Your task to perform on an android device: Open Reddit.com Image 0: 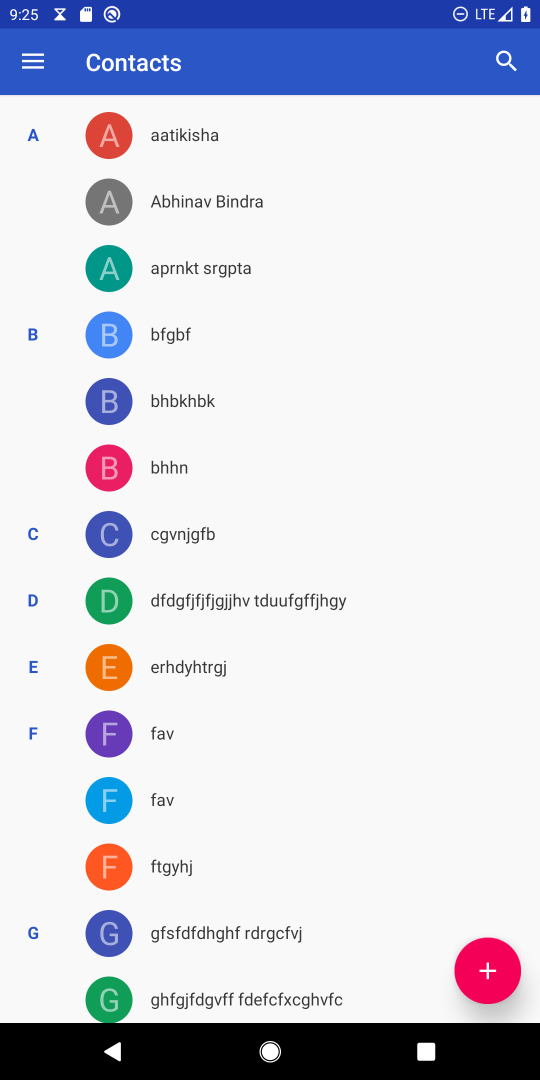
Step 0: press home button
Your task to perform on an android device: Open Reddit.com Image 1: 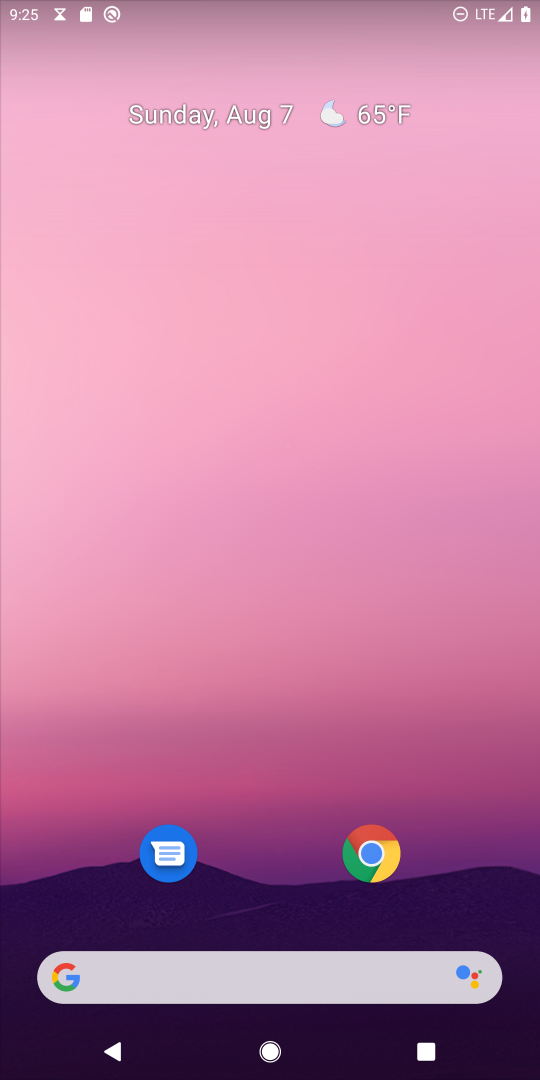
Step 1: drag from (217, 860) to (198, 173)
Your task to perform on an android device: Open Reddit.com Image 2: 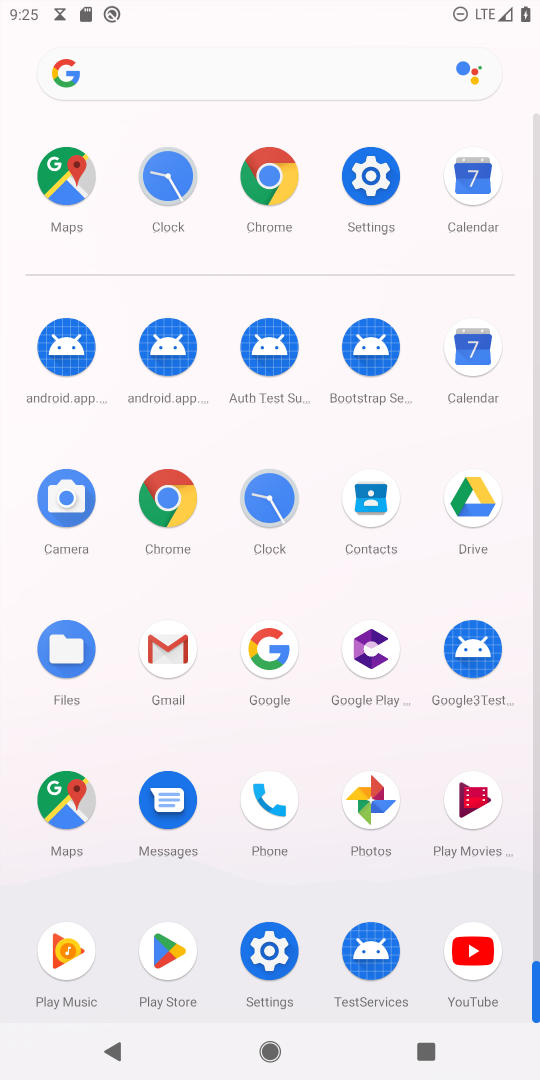
Step 2: click (274, 166)
Your task to perform on an android device: Open Reddit.com Image 3: 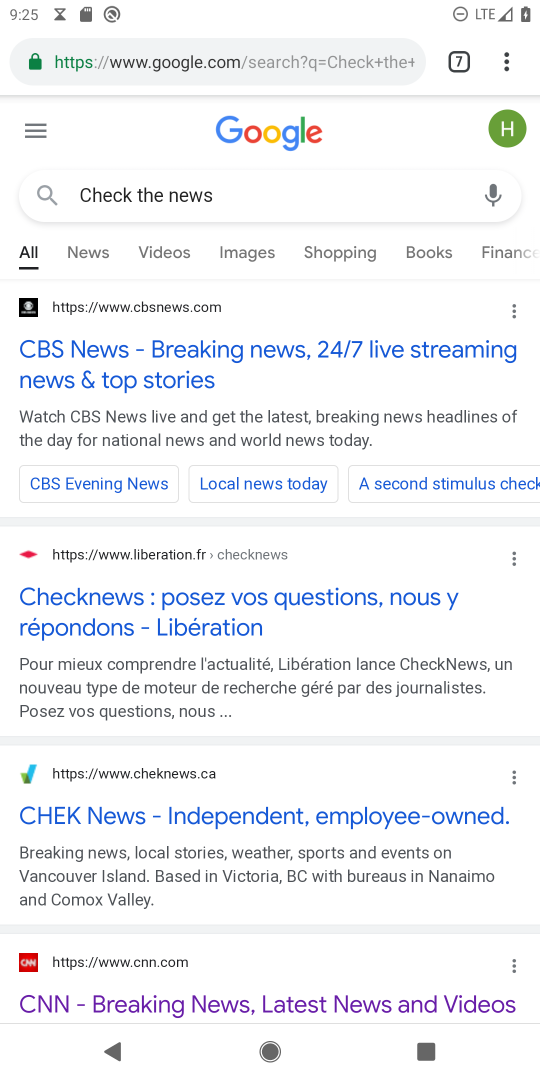
Step 3: click (504, 57)
Your task to perform on an android device: Open Reddit.com Image 4: 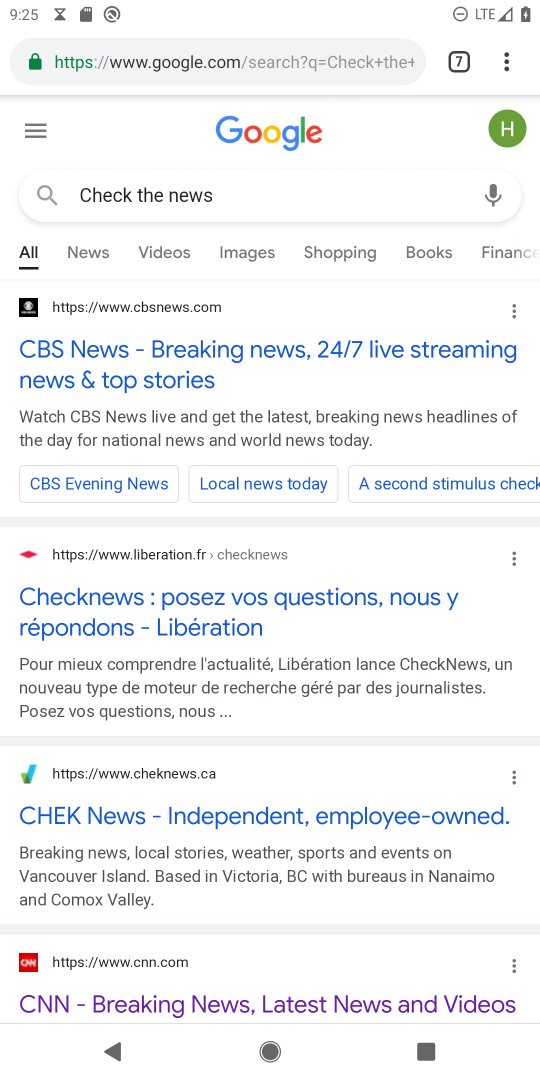
Step 4: click (508, 56)
Your task to perform on an android device: Open Reddit.com Image 5: 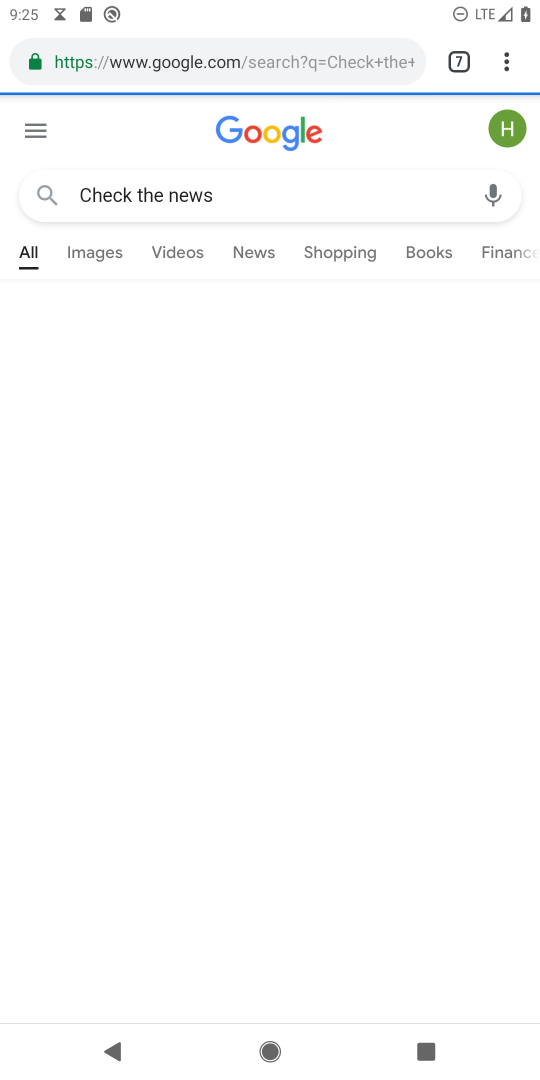
Step 5: click (501, 64)
Your task to perform on an android device: Open Reddit.com Image 6: 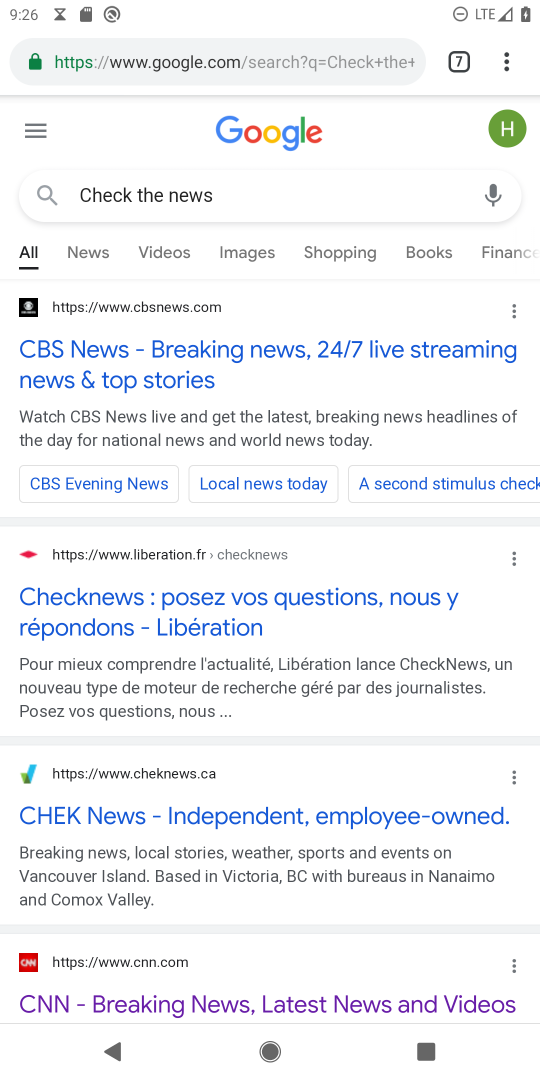
Step 6: click (509, 54)
Your task to perform on an android device: Open Reddit.com Image 7: 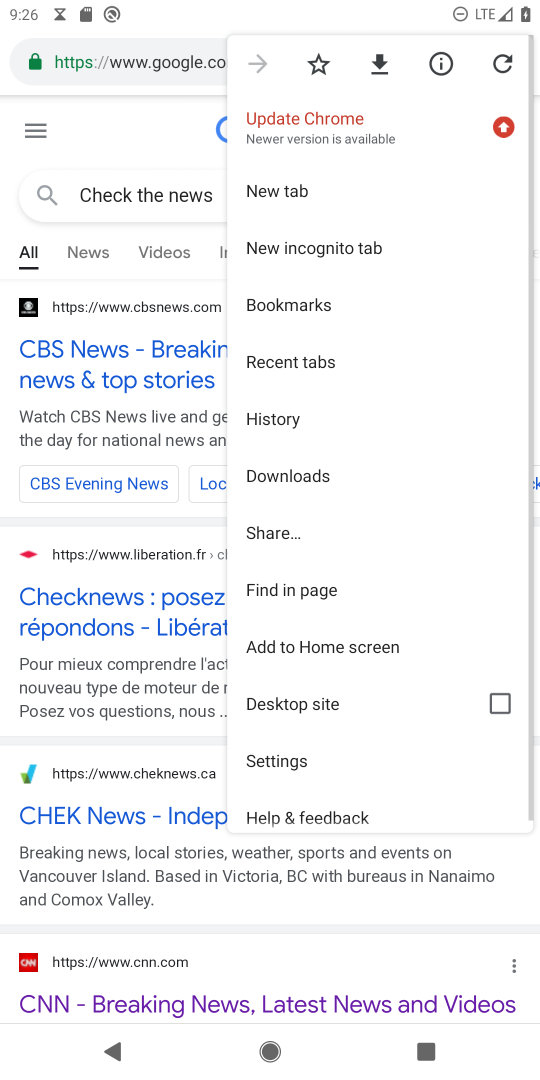
Step 7: click (293, 201)
Your task to perform on an android device: Open Reddit.com Image 8: 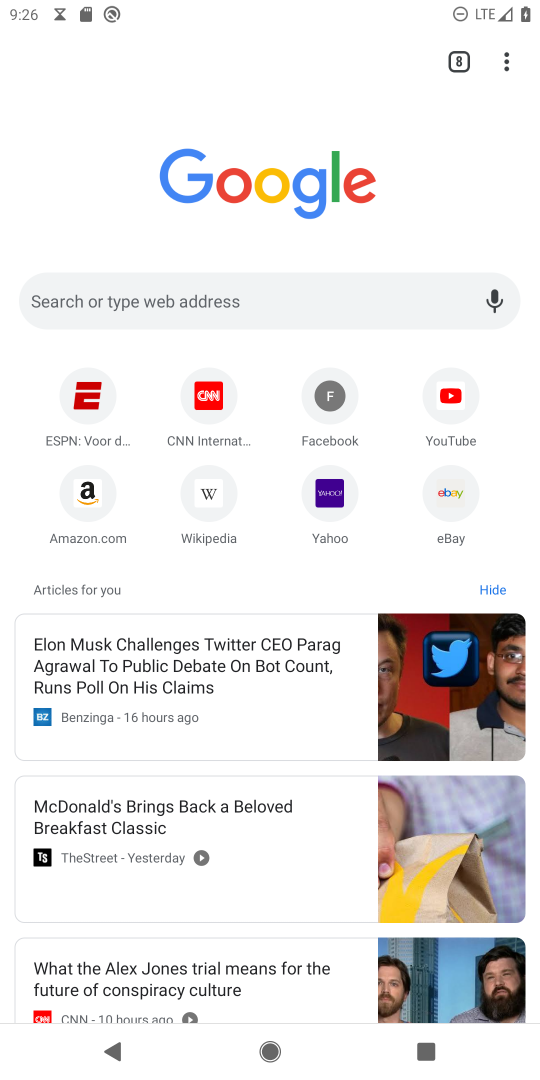
Step 8: click (349, 297)
Your task to perform on an android device: Open Reddit.com Image 9: 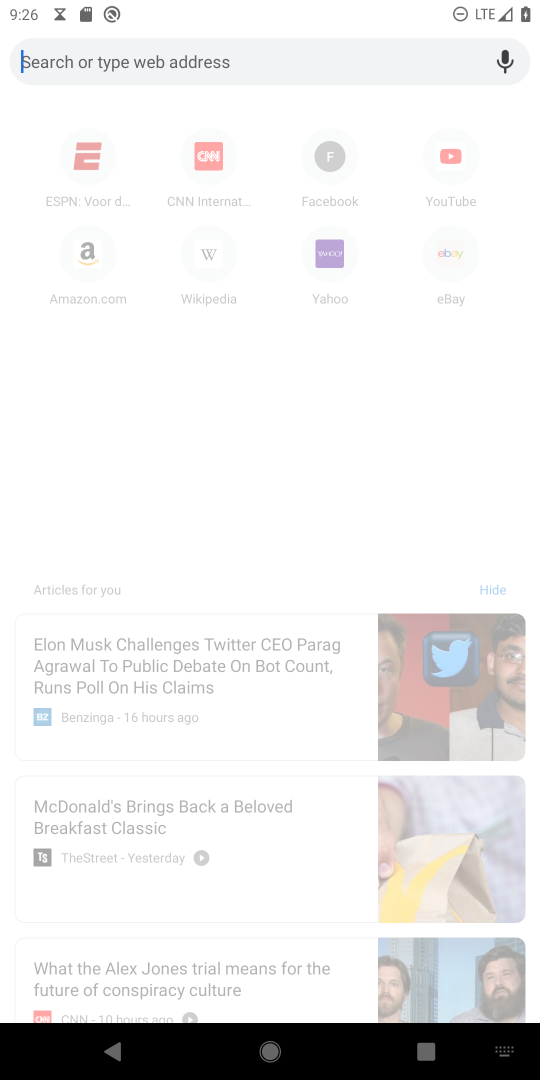
Step 9: type "Reddit.com "
Your task to perform on an android device: Open Reddit.com Image 10: 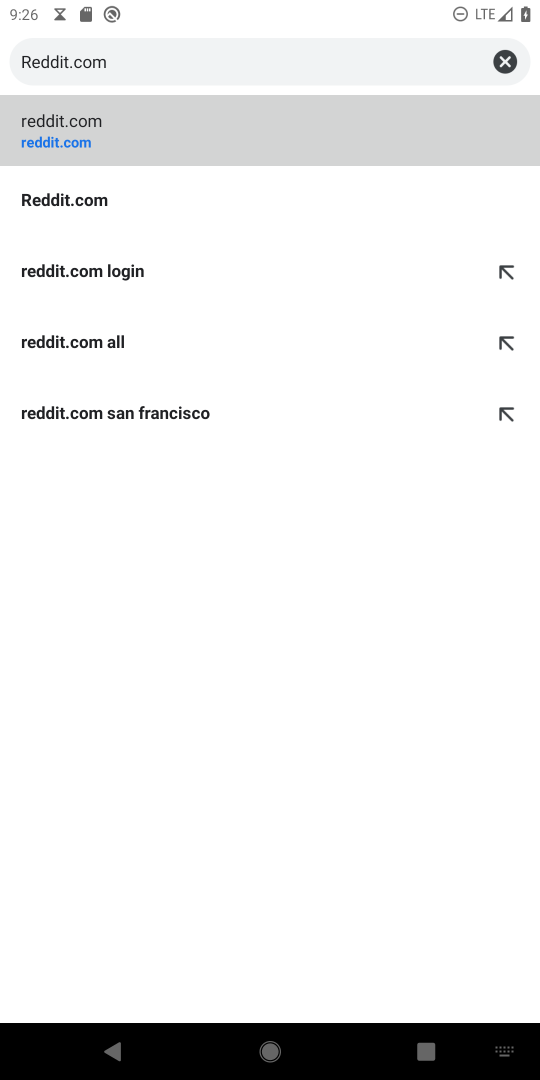
Step 10: click (162, 141)
Your task to perform on an android device: Open Reddit.com Image 11: 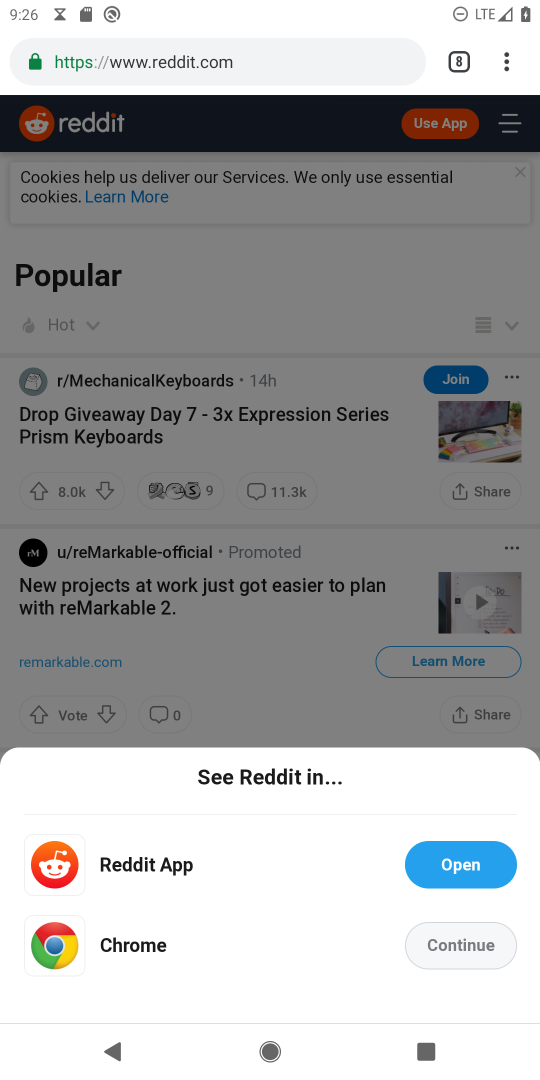
Step 11: task complete